Your task to perform on an android device: Go to notification settings Image 0: 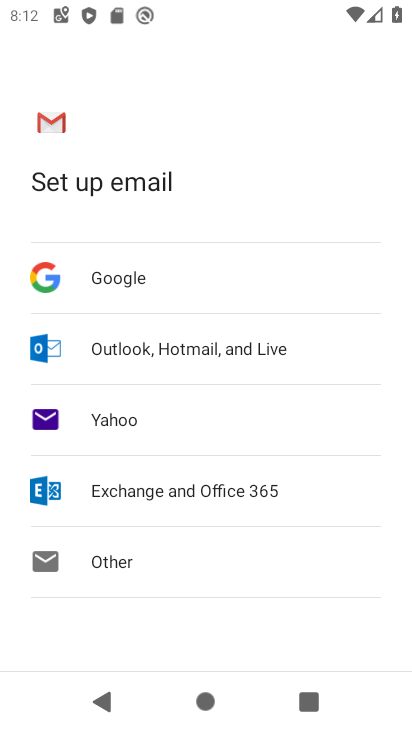
Step 0: press home button
Your task to perform on an android device: Go to notification settings Image 1: 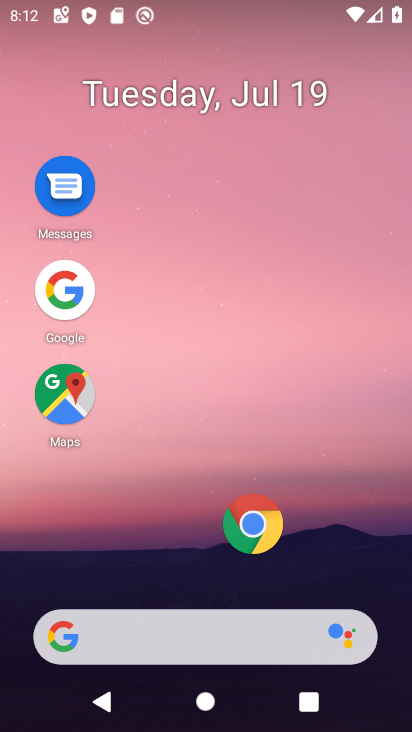
Step 1: drag from (192, 579) to (204, 721)
Your task to perform on an android device: Go to notification settings Image 2: 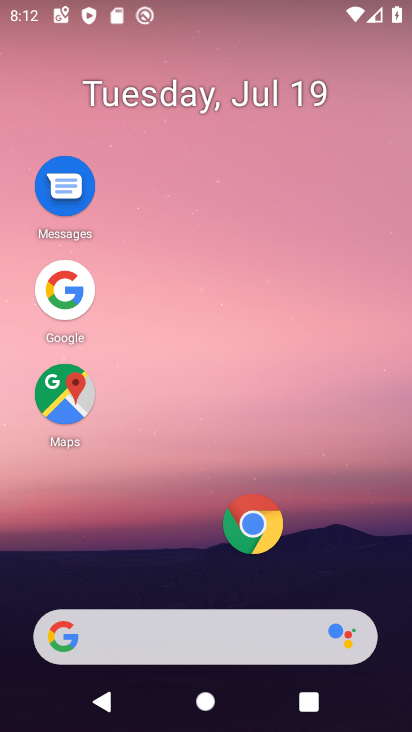
Step 2: drag from (209, 587) to (163, 108)
Your task to perform on an android device: Go to notification settings Image 3: 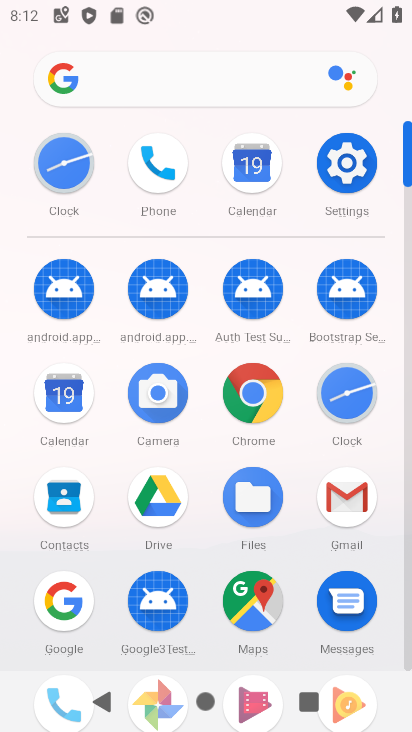
Step 3: click (337, 162)
Your task to perform on an android device: Go to notification settings Image 4: 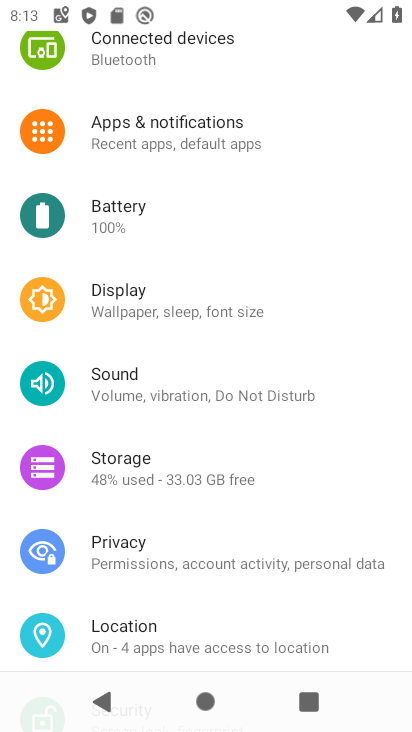
Step 4: click (230, 142)
Your task to perform on an android device: Go to notification settings Image 5: 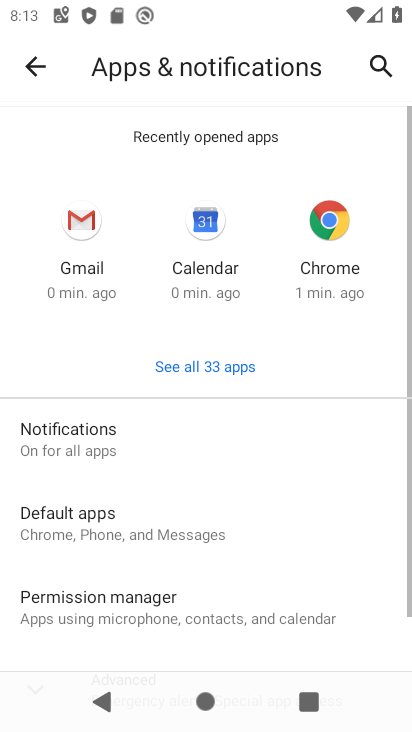
Step 5: click (76, 427)
Your task to perform on an android device: Go to notification settings Image 6: 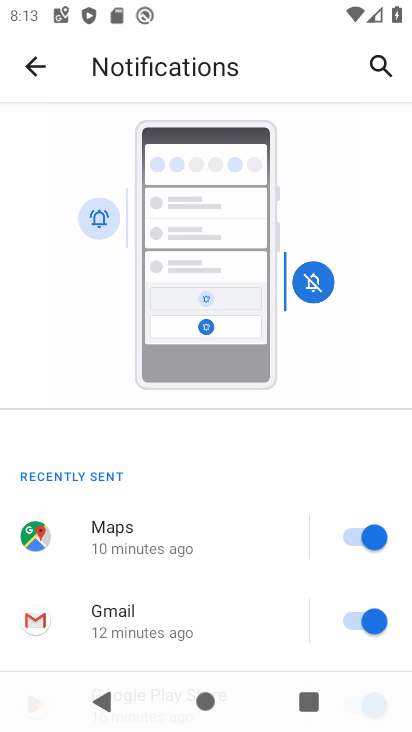
Step 6: task complete